Your task to perform on an android device: manage bookmarks in the chrome app Image 0: 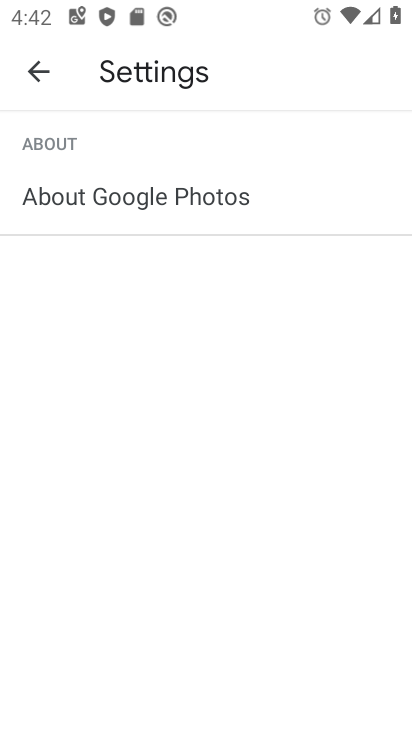
Step 0: press home button
Your task to perform on an android device: manage bookmarks in the chrome app Image 1: 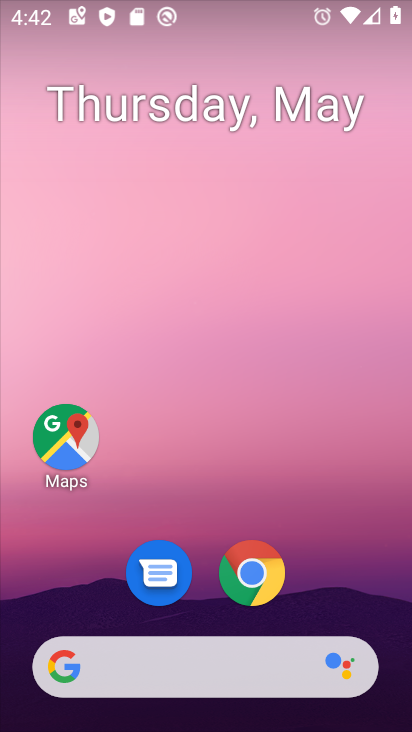
Step 1: drag from (309, 514) to (285, 147)
Your task to perform on an android device: manage bookmarks in the chrome app Image 2: 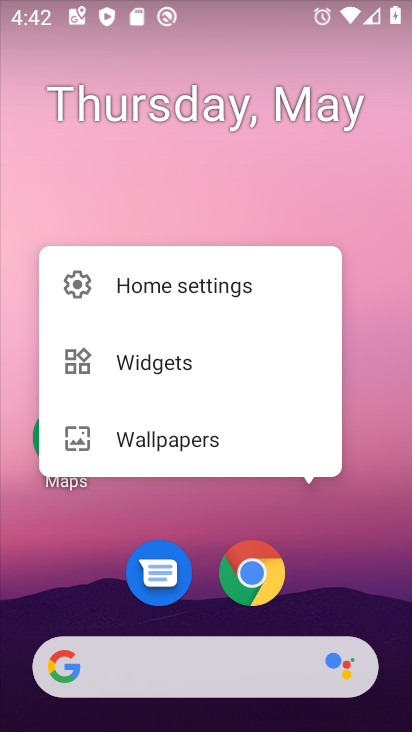
Step 2: click (338, 580)
Your task to perform on an android device: manage bookmarks in the chrome app Image 3: 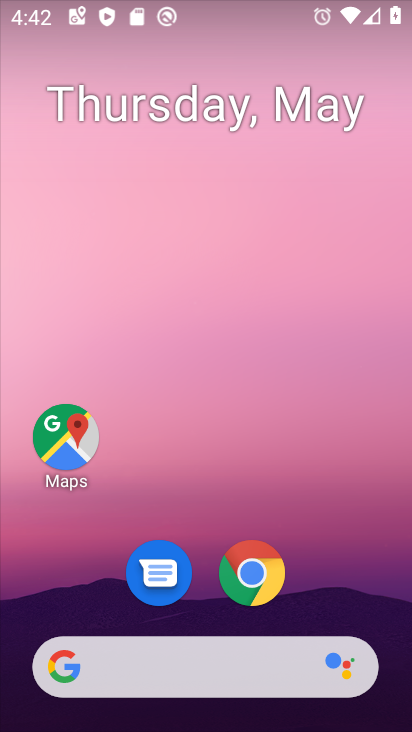
Step 3: click (248, 579)
Your task to perform on an android device: manage bookmarks in the chrome app Image 4: 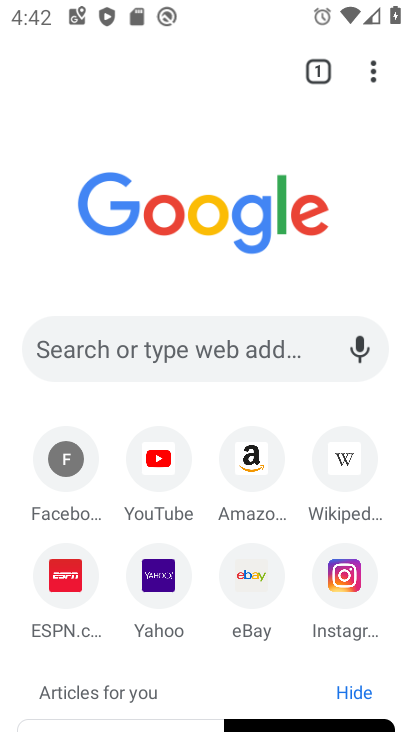
Step 4: click (374, 80)
Your task to perform on an android device: manage bookmarks in the chrome app Image 5: 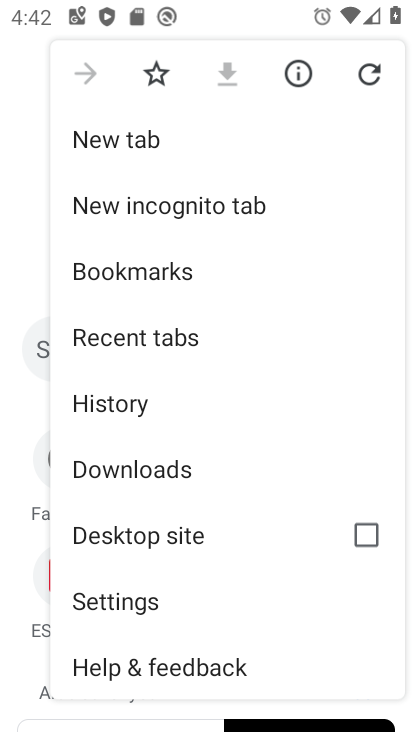
Step 5: click (183, 278)
Your task to perform on an android device: manage bookmarks in the chrome app Image 6: 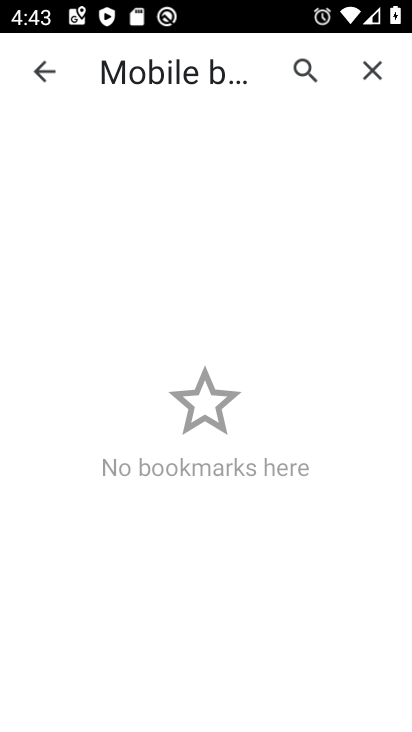
Step 6: task complete